Your task to perform on an android device: delete browsing data in the chrome app Image 0: 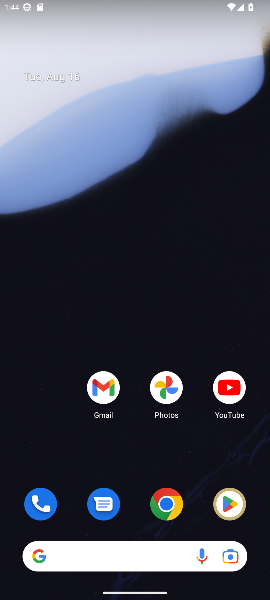
Step 0: click (167, 505)
Your task to perform on an android device: delete browsing data in the chrome app Image 1: 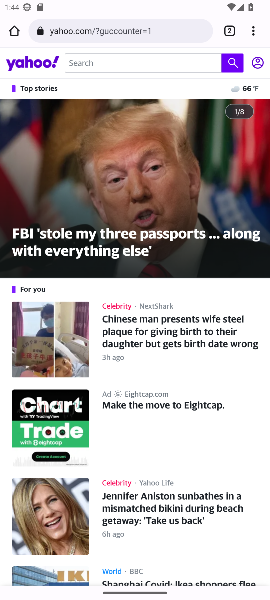
Step 1: click (256, 24)
Your task to perform on an android device: delete browsing data in the chrome app Image 2: 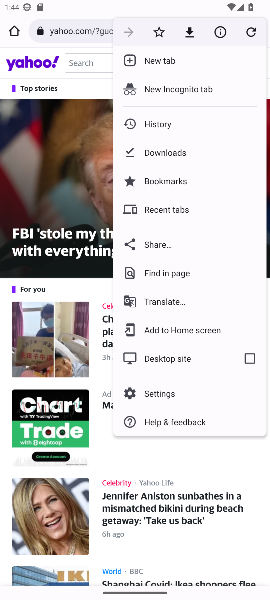
Step 2: click (163, 120)
Your task to perform on an android device: delete browsing data in the chrome app Image 3: 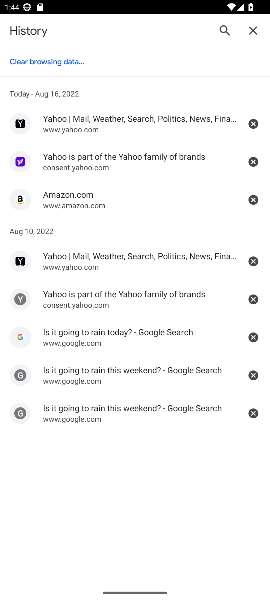
Step 3: click (36, 58)
Your task to perform on an android device: delete browsing data in the chrome app Image 4: 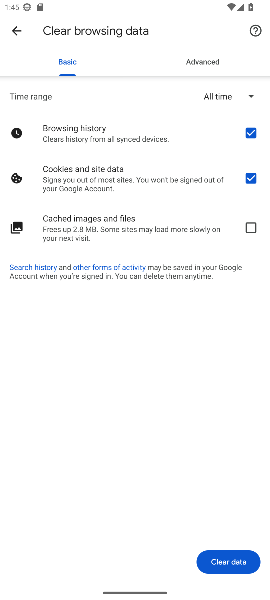
Step 4: click (224, 559)
Your task to perform on an android device: delete browsing data in the chrome app Image 5: 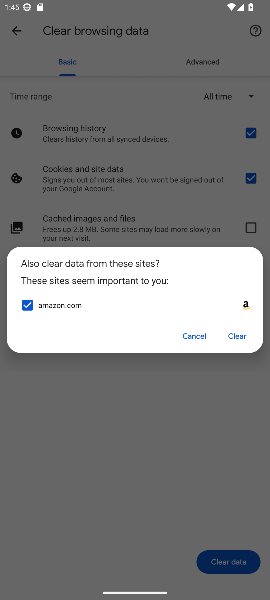
Step 5: click (236, 335)
Your task to perform on an android device: delete browsing data in the chrome app Image 6: 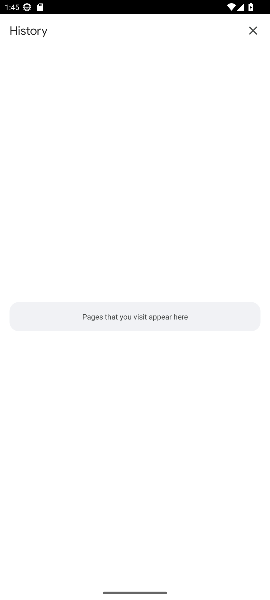
Step 6: task complete